Your task to perform on an android device: open device folders in google photos Image 0: 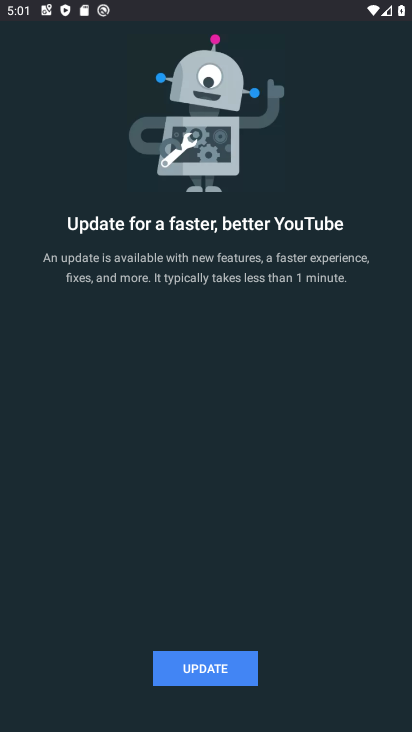
Step 0: press home button
Your task to perform on an android device: open device folders in google photos Image 1: 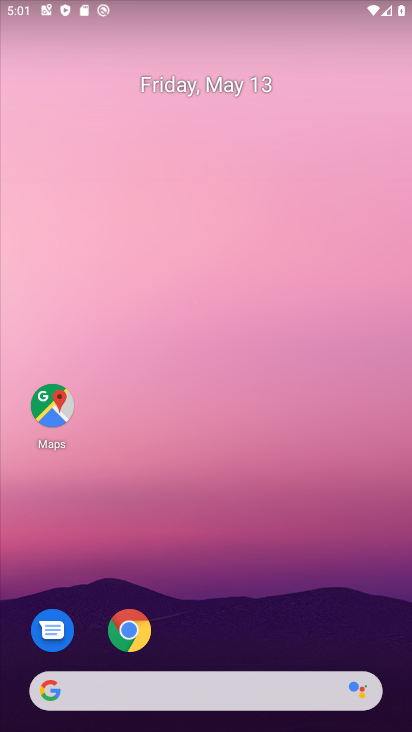
Step 1: drag from (284, 552) to (215, 14)
Your task to perform on an android device: open device folders in google photos Image 2: 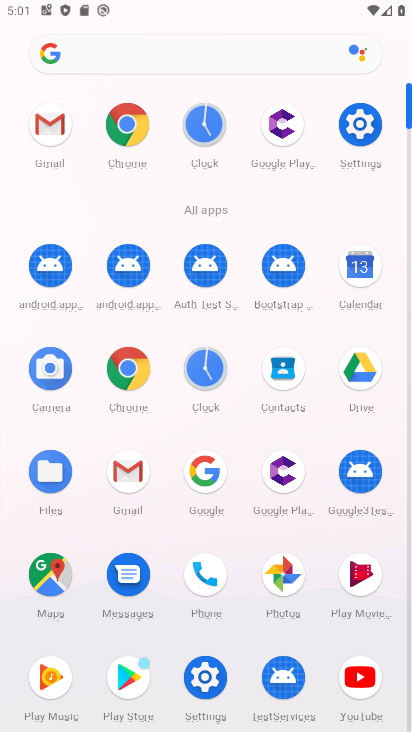
Step 2: click (269, 565)
Your task to perform on an android device: open device folders in google photos Image 3: 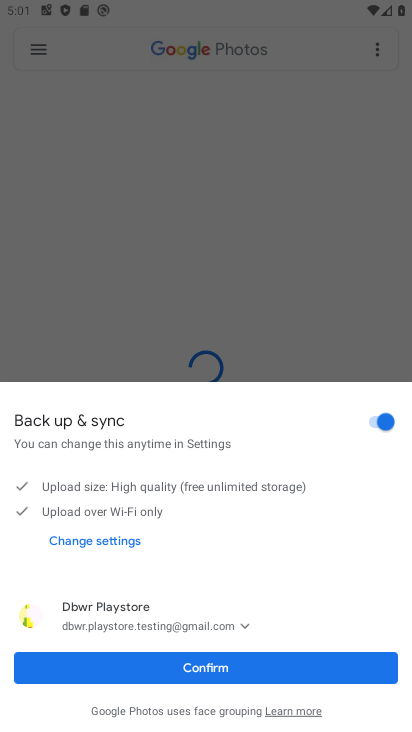
Step 3: click (234, 670)
Your task to perform on an android device: open device folders in google photos Image 4: 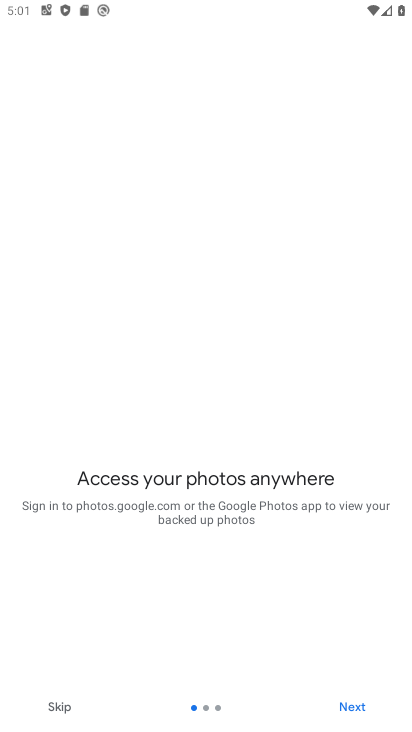
Step 4: click (45, 707)
Your task to perform on an android device: open device folders in google photos Image 5: 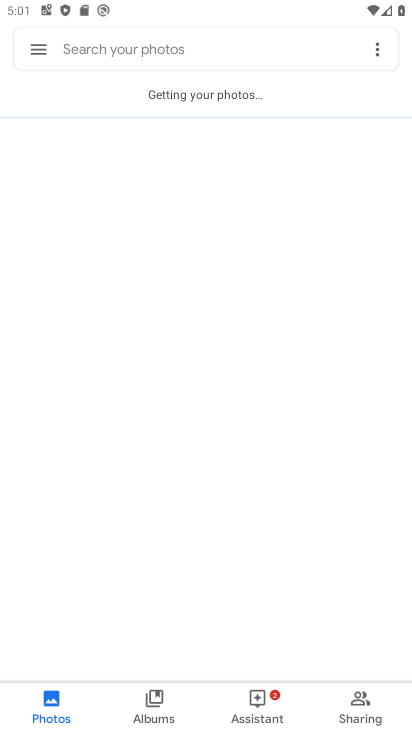
Step 5: click (35, 51)
Your task to perform on an android device: open device folders in google photos Image 6: 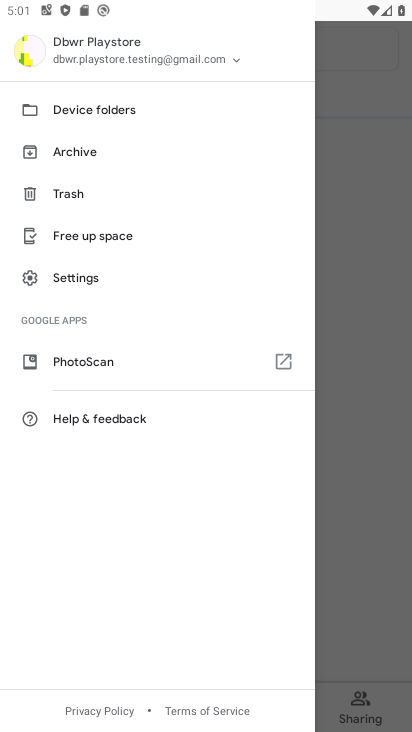
Step 6: click (50, 107)
Your task to perform on an android device: open device folders in google photos Image 7: 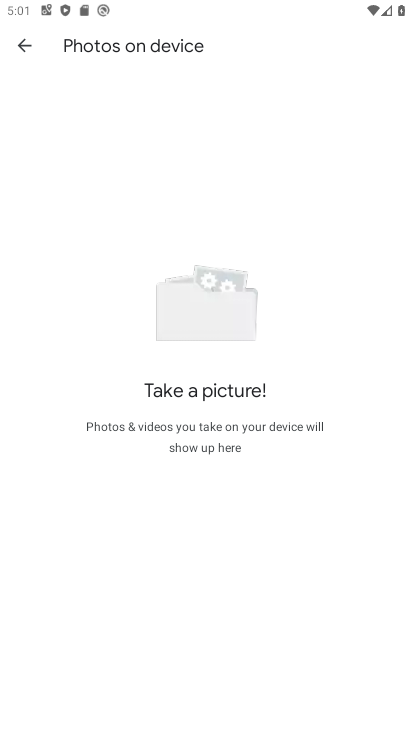
Step 7: task complete